Your task to perform on an android device: Open battery settings Image 0: 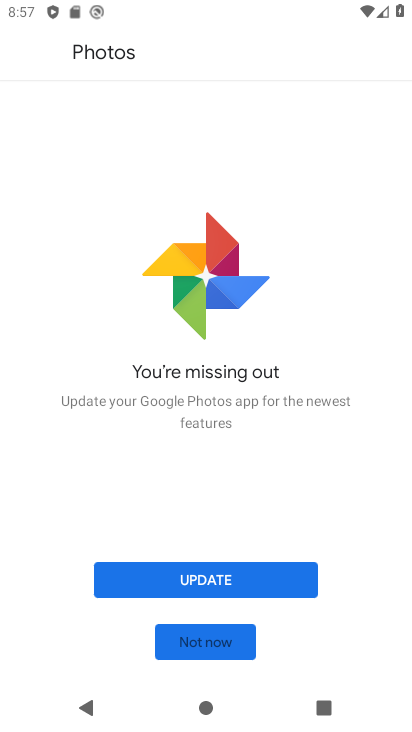
Step 0: press home button
Your task to perform on an android device: Open battery settings Image 1: 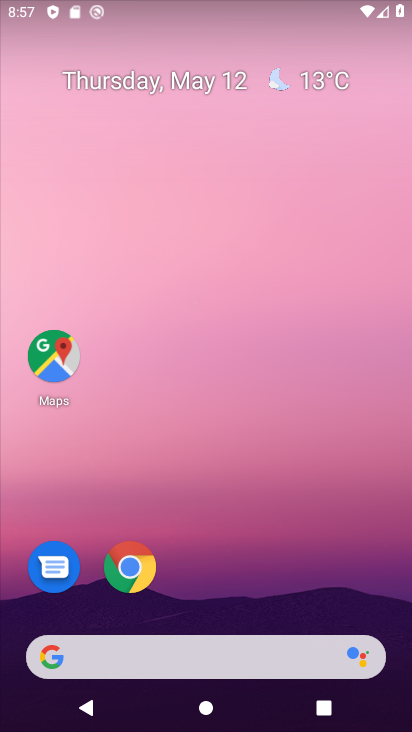
Step 1: drag from (209, 590) to (265, 171)
Your task to perform on an android device: Open battery settings Image 2: 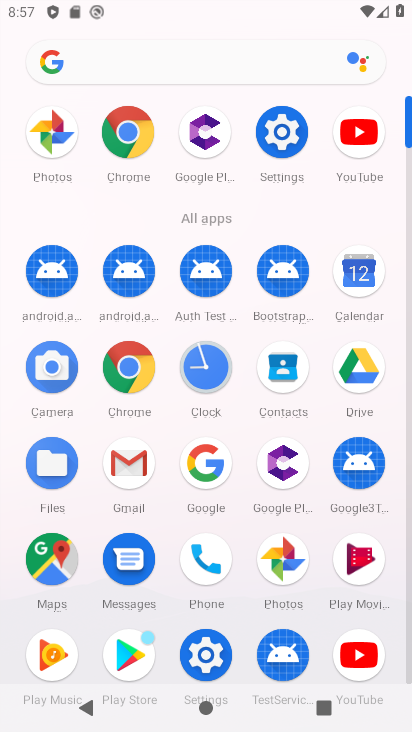
Step 2: click (287, 127)
Your task to perform on an android device: Open battery settings Image 3: 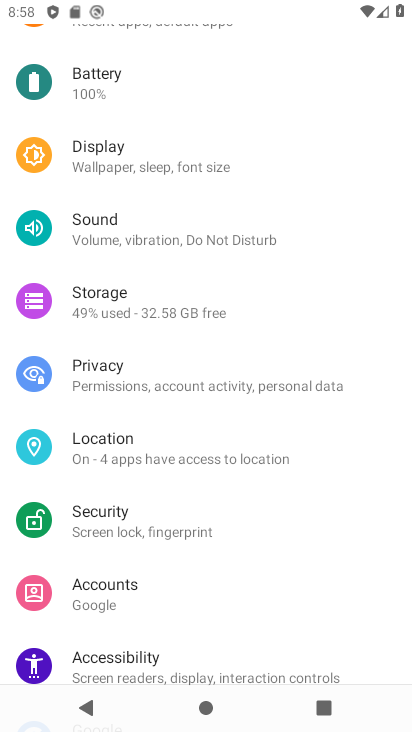
Step 3: click (128, 85)
Your task to perform on an android device: Open battery settings Image 4: 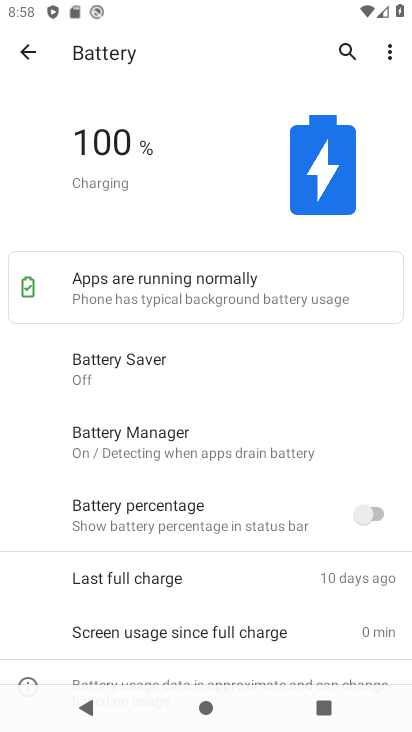
Step 4: task complete